Your task to perform on an android device: turn on location history Image 0: 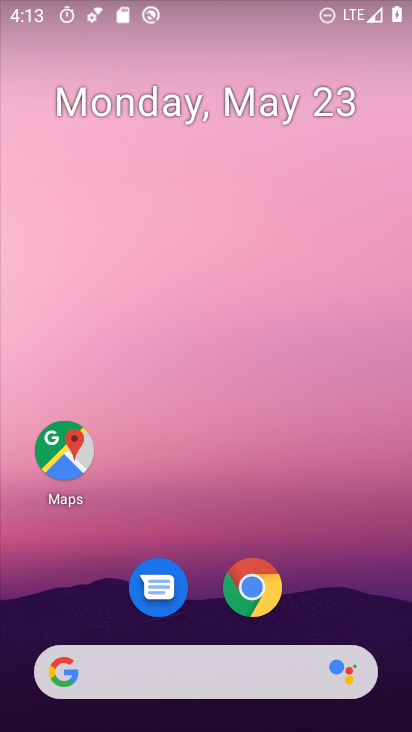
Step 0: drag from (209, 591) to (210, 12)
Your task to perform on an android device: turn on location history Image 1: 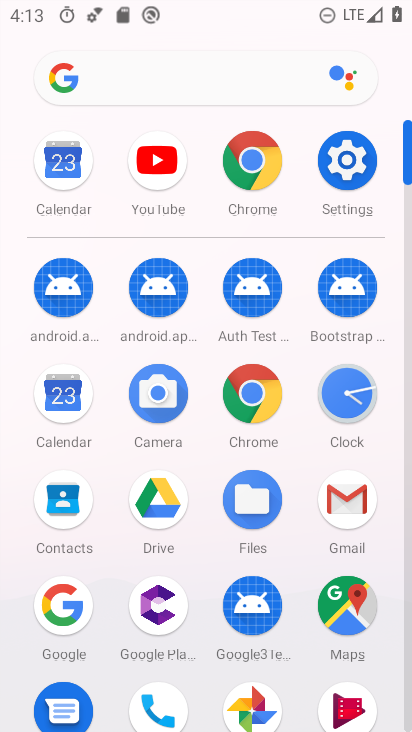
Step 1: click (346, 160)
Your task to perform on an android device: turn on location history Image 2: 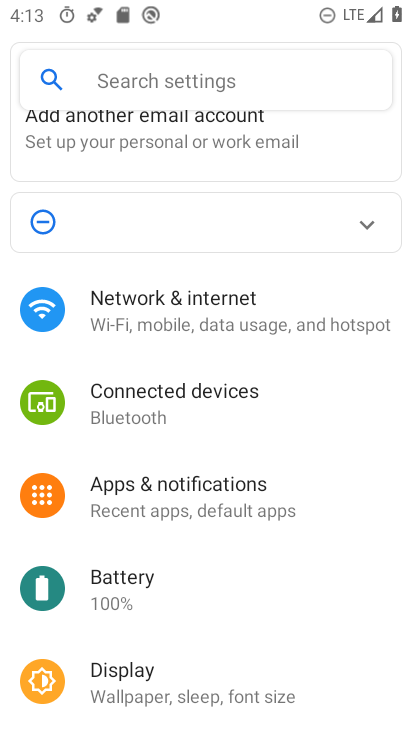
Step 2: drag from (212, 653) to (230, 260)
Your task to perform on an android device: turn on location history Image 3: 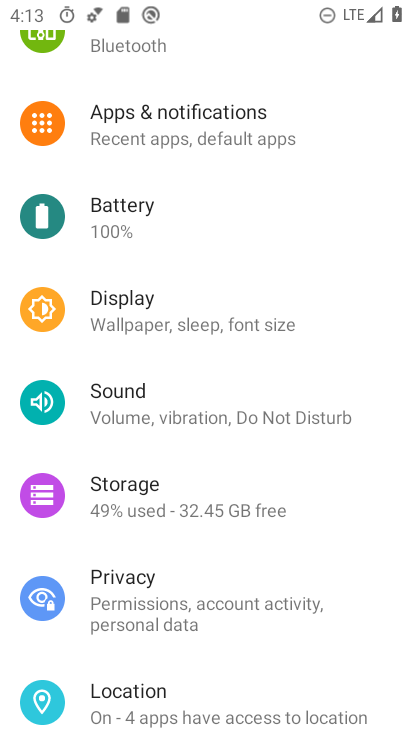
Step 3: click (165, 695)
Your task to perform on an android device: turn on location history Image 4: 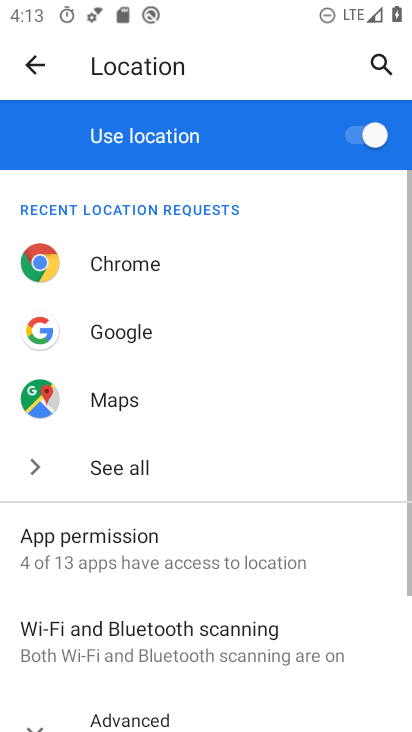
Step 4: drag from (185, 639) to (258, 268)
Your task to perform on an android device: turn on location history Image 5: 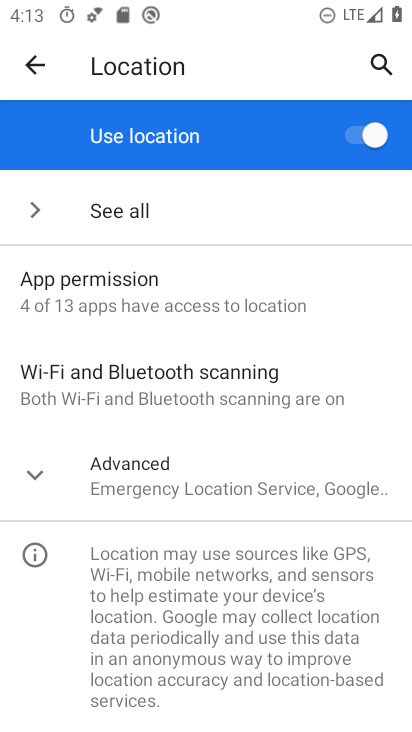
Step 5: click (199, 488)
Your task to perform on an android device: turn on location history Image 6: 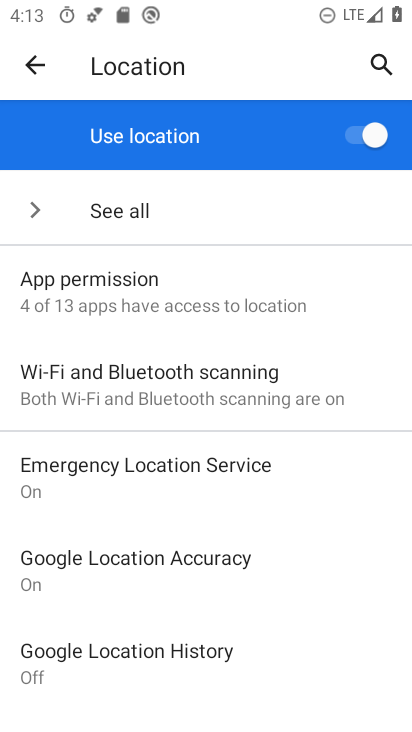
Step 6: drag from (182, 657) to (211, 508)
Your task to perform on an android device: turn on location history Image 7: 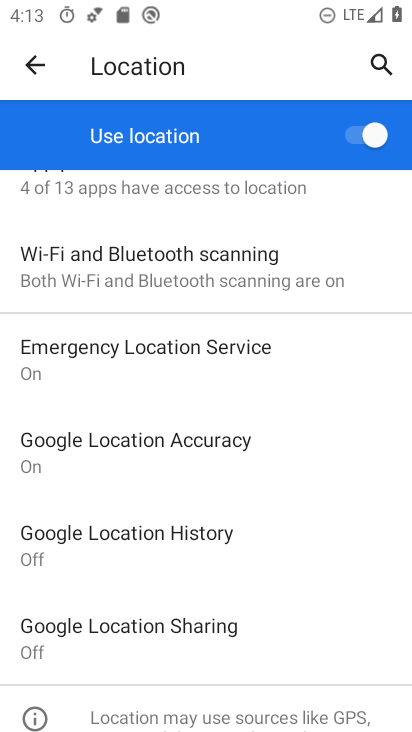
Step 7: click (166, 535)
Your task to perform on an android device: turn on location history Image 8: 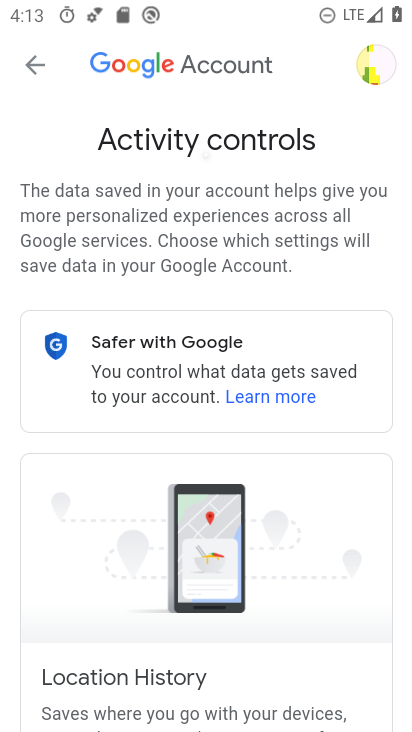
Step 8: task complete